Your task to perform on an android device: turn on airplane mode Image 0: 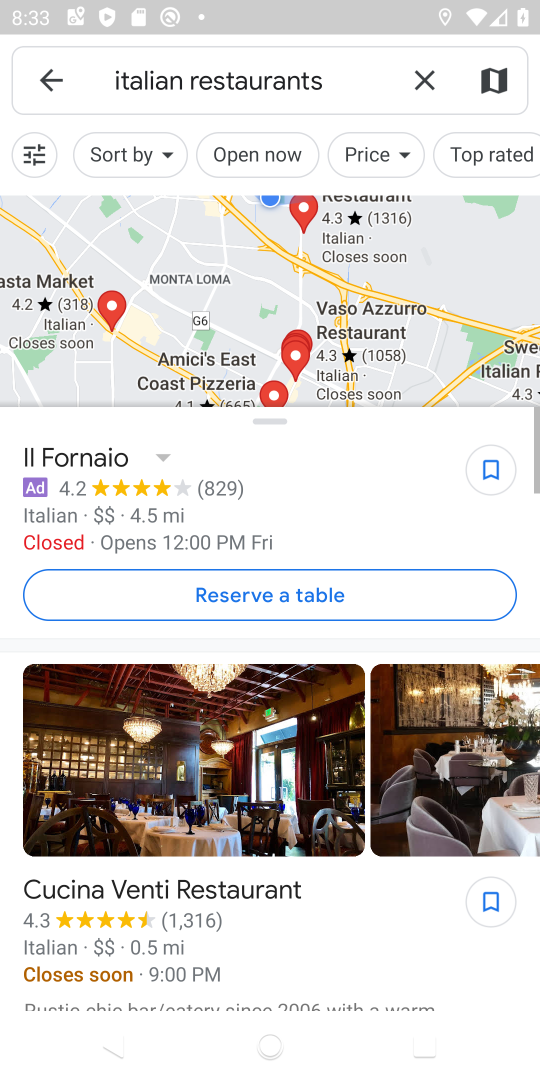
Step 0: press home button
Your task to perform on an android device: turn on airplane mode Image 1: 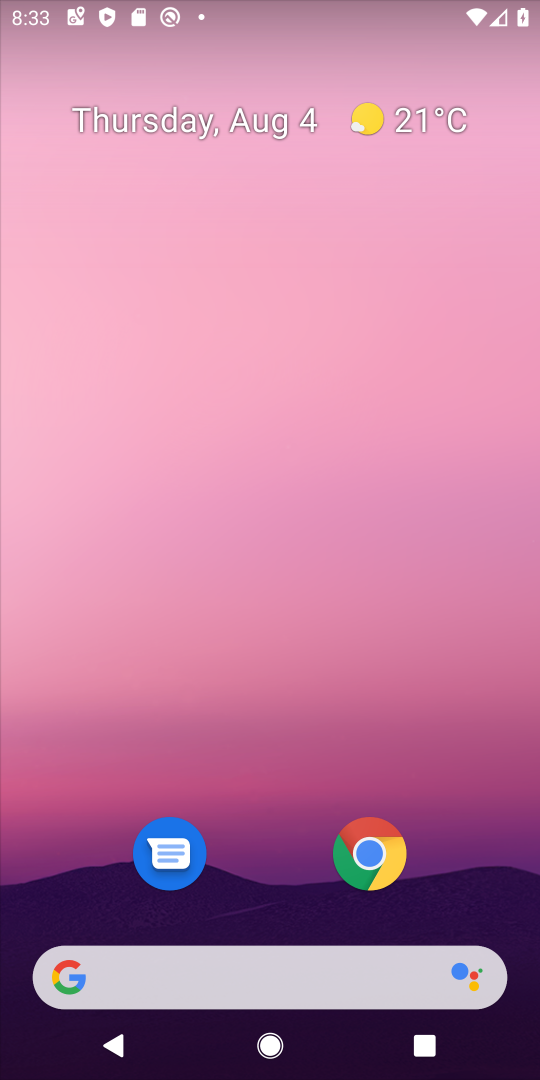
Step 1: drag from (215, 945) to (224, 521)
Your task to perform on an android device: turn on airplane mode Image 2: 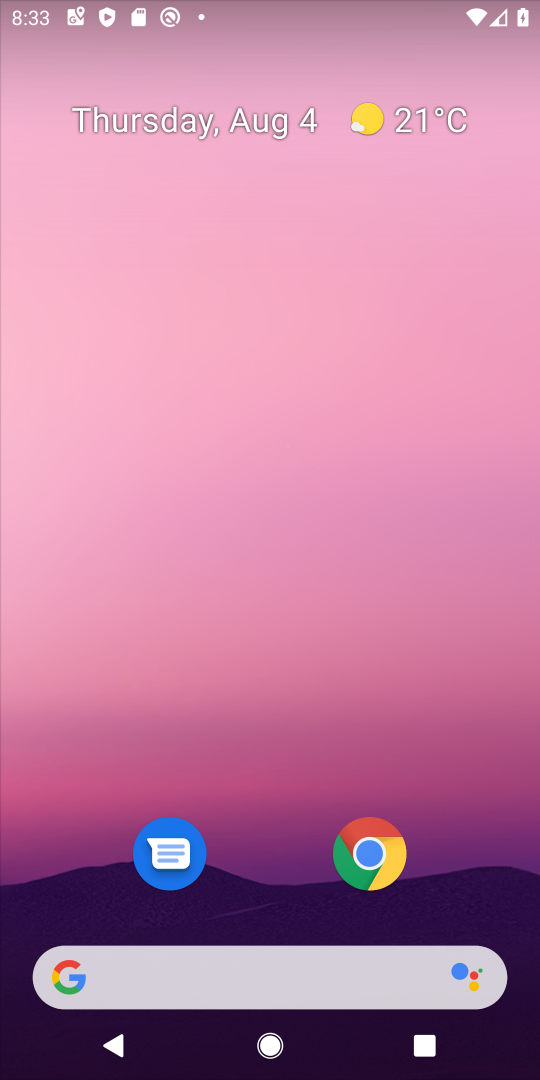
Step 2: click (261, 256)
Your task to perform on an android device: turn on airplane mode Image 3: 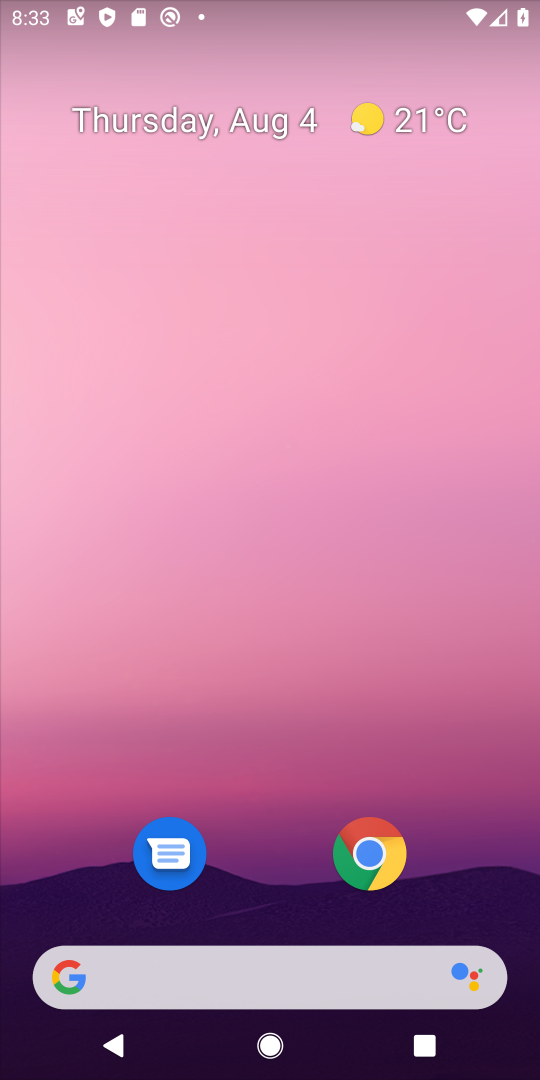
Step 3: drag from (299, 982) to (297, 397)
Your task to perform on an android device: turn on airplane mode Image 4: 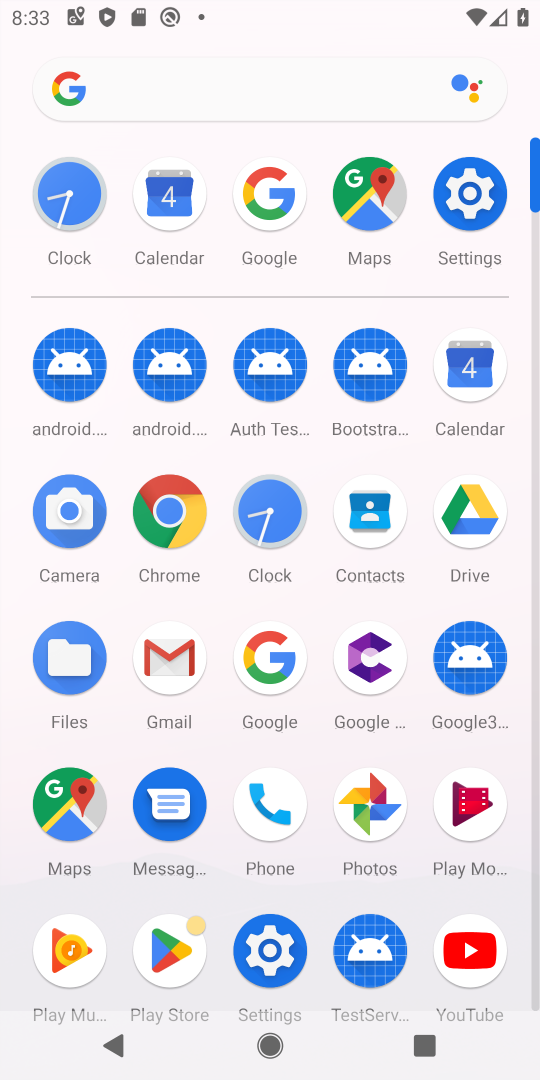
Step 4: click (482, 194)
Your task to perform on an android device: turn on airplane mode Image 5: 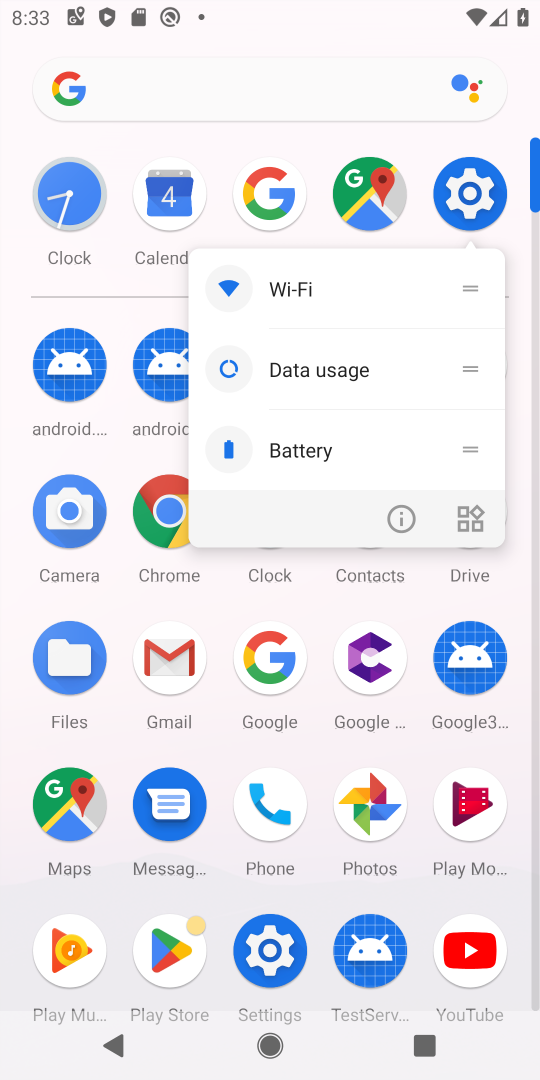
Step 5: click (482, 194)
Your task to perform on an android device: turn on airplane mode Image 6: 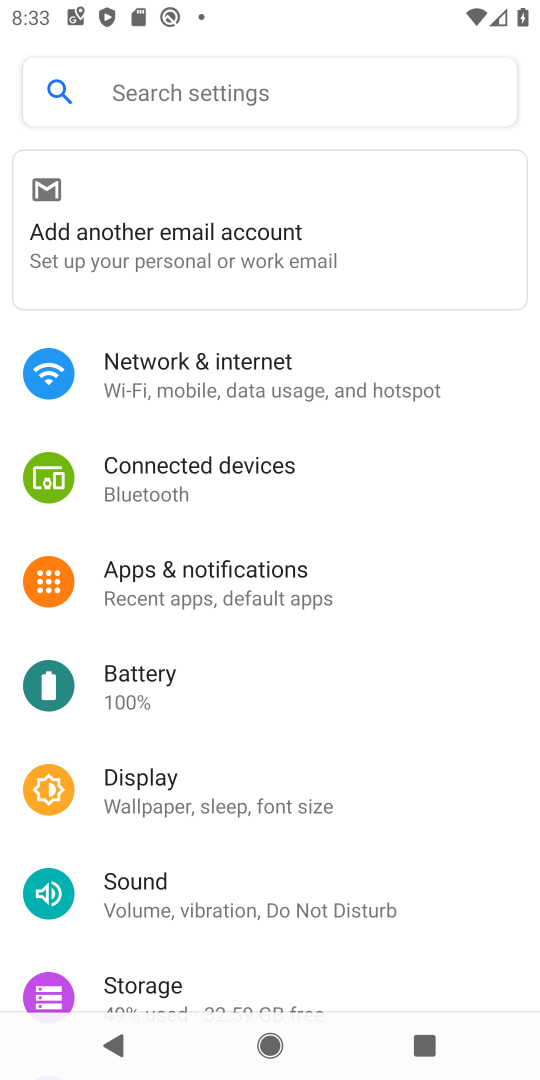
Step 6: click (236, 372)
Your task to perform on an android device: turn on airplane mode Image 7: 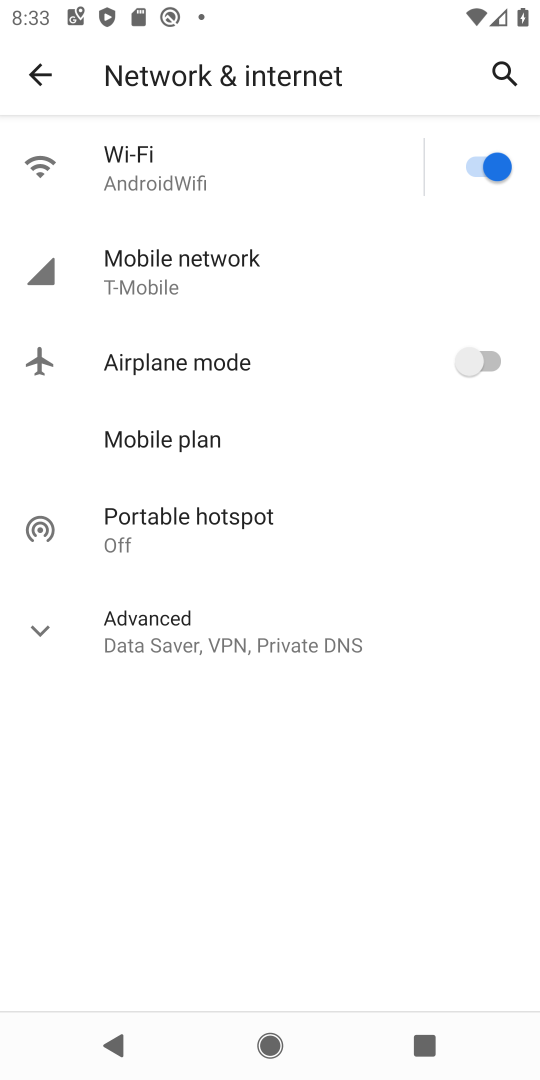
Step 7: click (471, 352)
Your task to perform on an android device: turn on airplane mode Image 8: 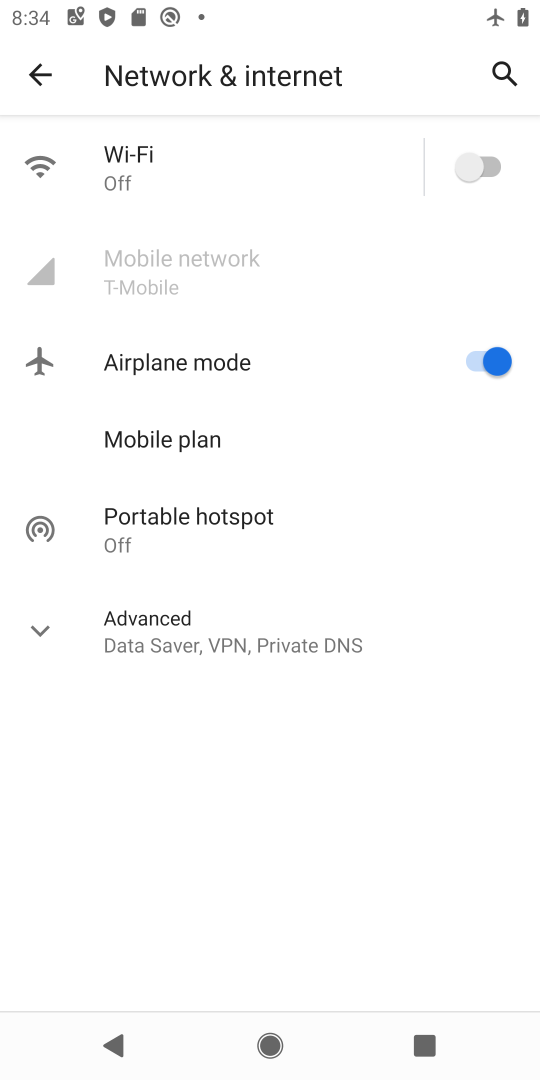
Step 8: task complete